Your task to perform on an android device: Open calendar and show me the fourth week of next month Image 0: 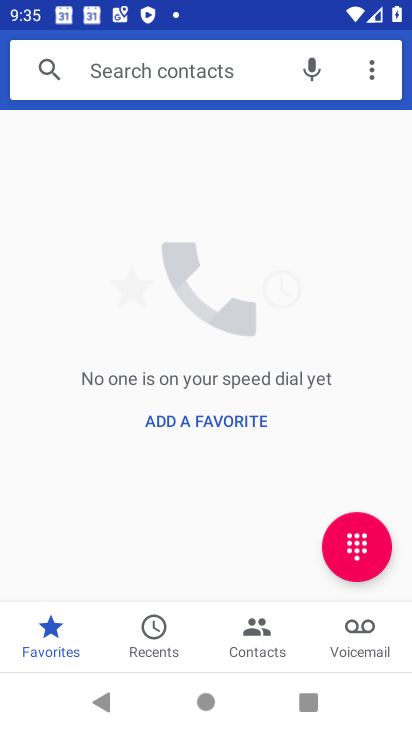
Step 0: press home button
Your task to perform on an android device: Open calendar and show me the fourth week of next month Image 1: 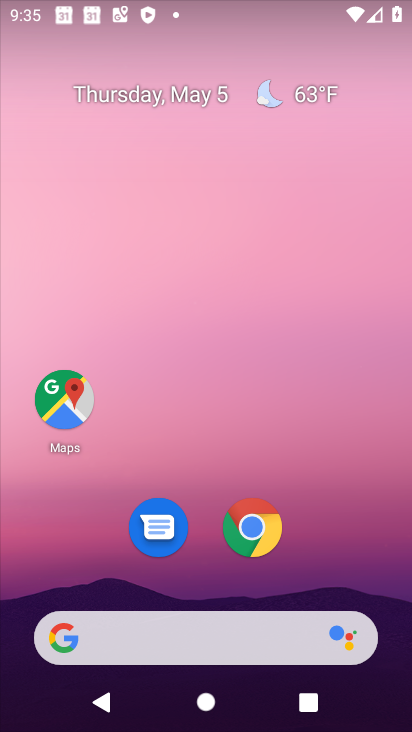
Step 1: drag from (244, 711) to (185, 0)
Your task to perform on an android device: Open calendar and show me the fourth week of next month Image 2: 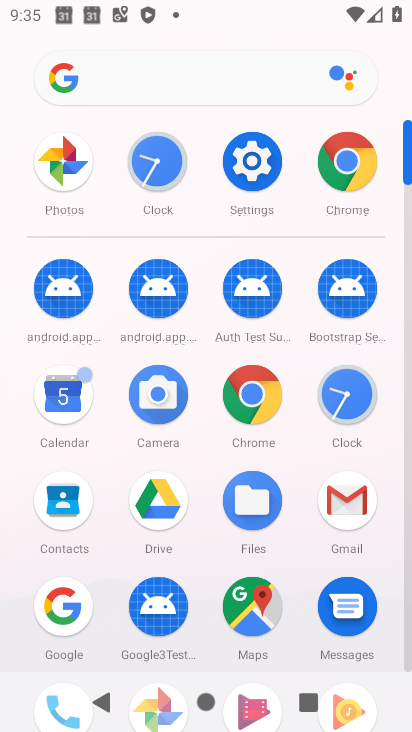
Step 2: click (57, 415)
Your task to perform on an android device: Open calendar and show me the fourth week of next month Image 3: 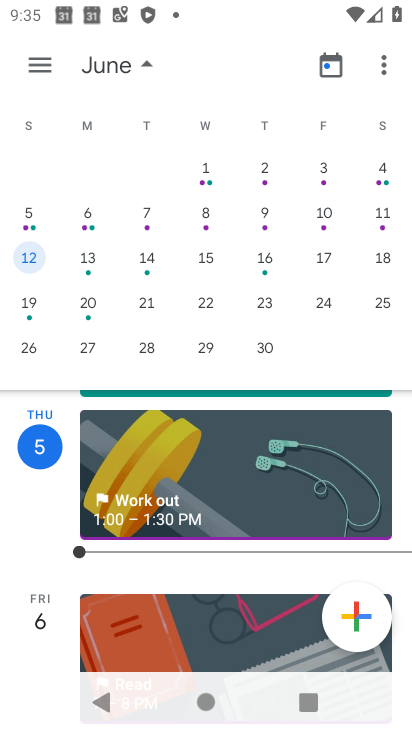
Step 3: click (26, 309)
Your task to perform on an android device: Open calendar and show me the fourth week of next month Image 4: 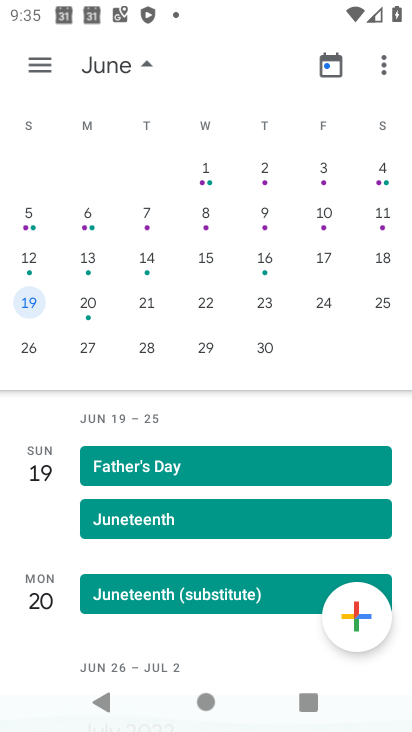
Step 4: task complete